Your task to perform on an android device: check google app version Image 0: 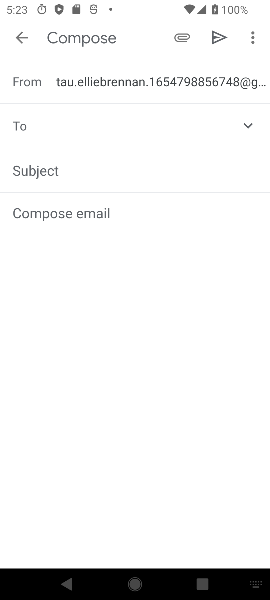
Step 0: click (12, 34)
Your task to perform on an android device: check google app version Image 1: 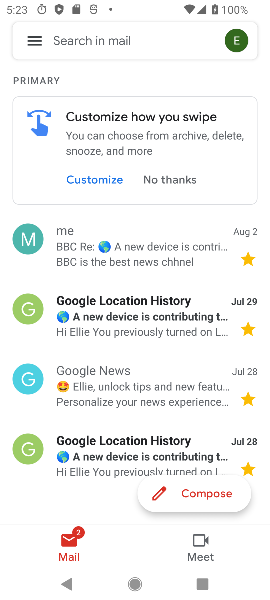
Step 1: press back button
Your task to perform on an android device: check google app version Image 2: 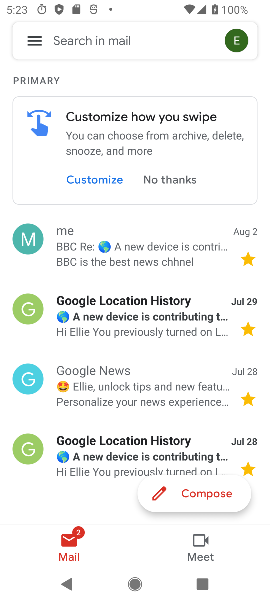
Step 2: press home button
Your task to perform on an android device: check google app version Image 3: 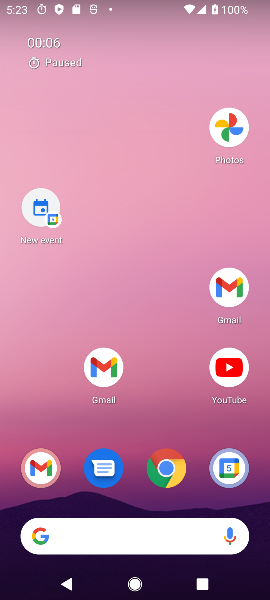
Step 3: drag from (174, 507) to (86, 120)
Your task to perform on an android device: check google app version Image 4: 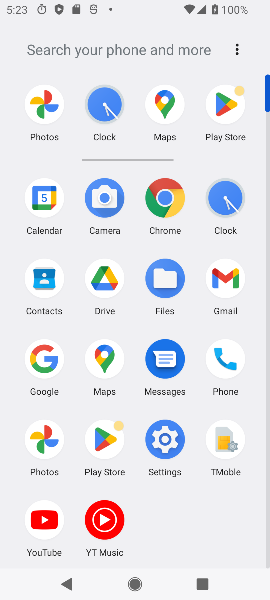
Step 4: drag from (144, 436) to (114, 92)
Your task to perform on an android device: check google app version Image 5: 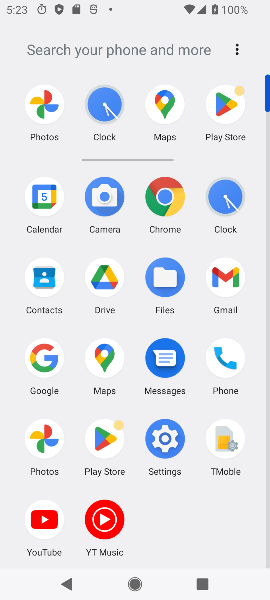
Step 5: click (128, 60)
Your task to perform on an android device: check google app version Image 6: 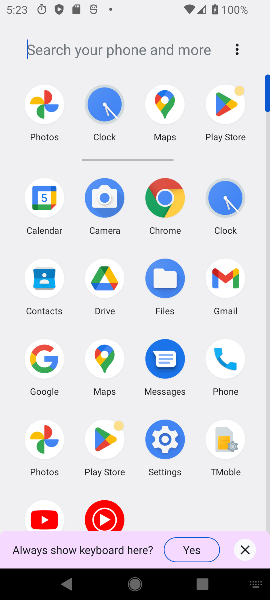
Step 6: click (37, 357)
Your task to perform on an android device: check google app version Image 7: 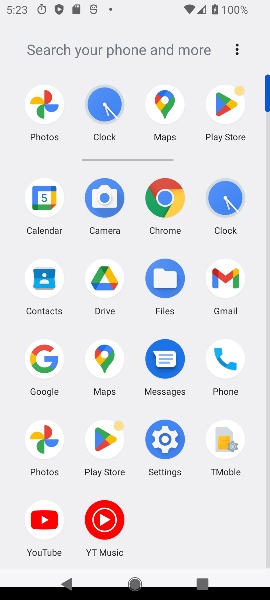
Step 7: click (37, 357)
Your task to perform on an android device: check google app version Image 8: 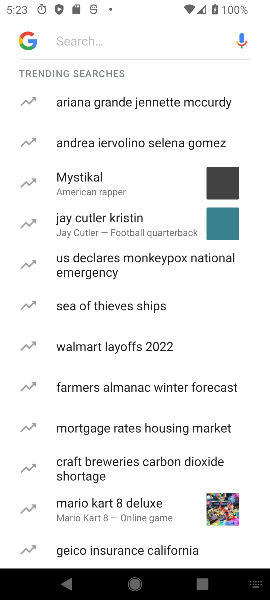
Step 8: click (37, 357)
Your task to perform on an android device: check google app version Image 9: 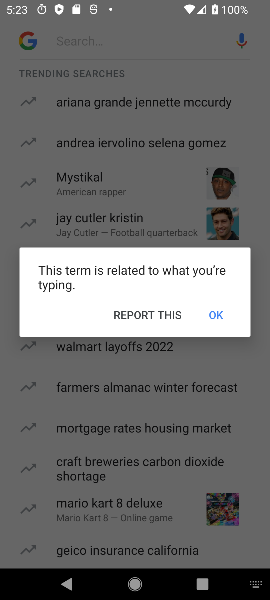
Step 9: click (68, 45)
Your task to perform on an android device: check google app version Image 10: 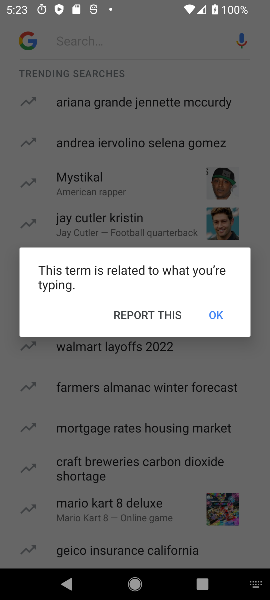
Step 10: click (67, 45)
Your task to perform on an android device: check google app version Image 11: 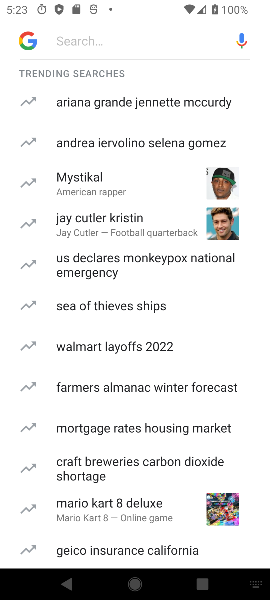
Step 11: click (66, 46)
Your task to perform on an android device: check google app version Image 12: 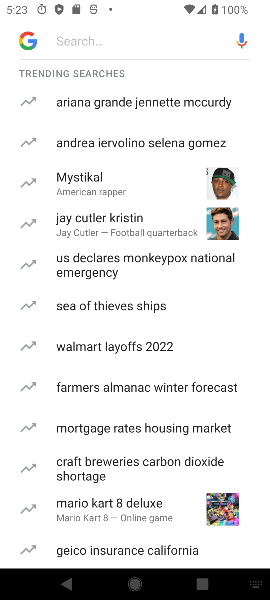
Step 12: click (67, 47)
Your task to perform on an android device: check google app version Image 13: 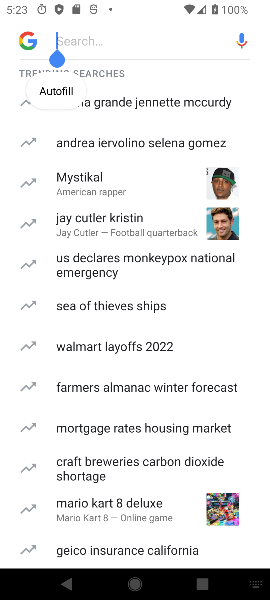
Step 13: click (67, 47)
Your task to perform on an android device: check google app version Image 14: 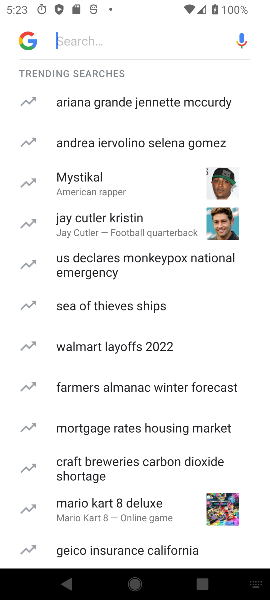
Step 14: click (67, 47)
Your task to perform on an android device: check google app version Image 15: 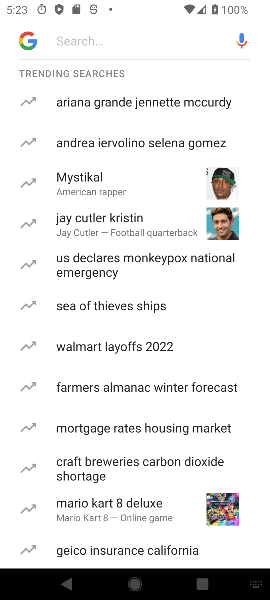
Step 15: click (195, 440)
Your task to perform on an android device: check google app version Image 16: 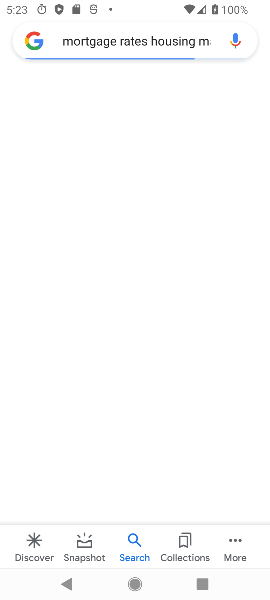
Step 16: drag from (221, 39) to (196, 276)
Your task to perform on an android device: check google app version Image 17: 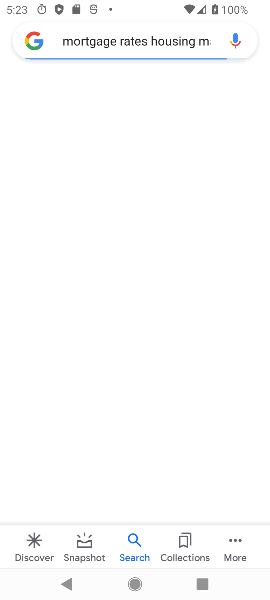
Step 17: drag from (152, 58) to (144, 304)
Your task to perform on an android device: check google app version Image 18: 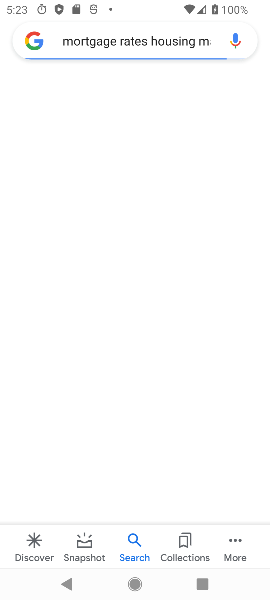
Step 18: drag from (228, 134) to (232, 293)
Your task to perform on an android device: check google app version Image 19: 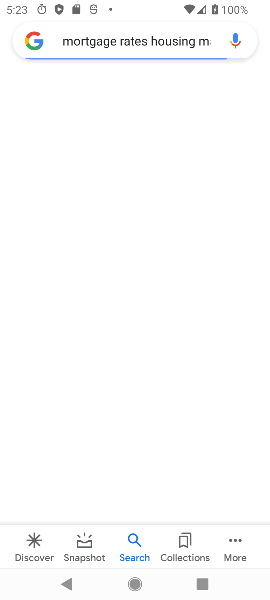
Step 19: drag from (244, 40) to (226, 365)
Your task to perform on an android device: check google app version Image 20: 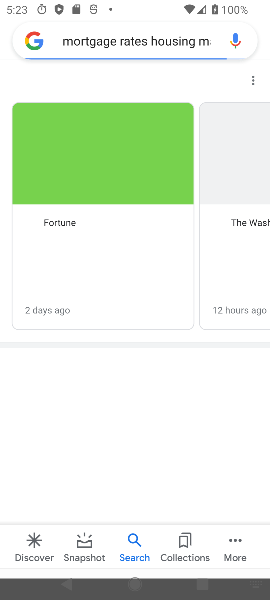
Step 20: click (238, 550)
Your task to perform on an android device: check google app version Image 21: 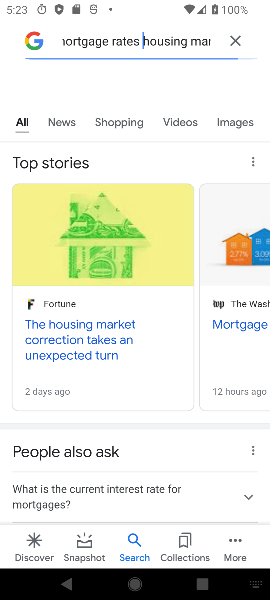
Step 21: click (238, 550)
Your task to perform on an android device: check google app version Image 22: 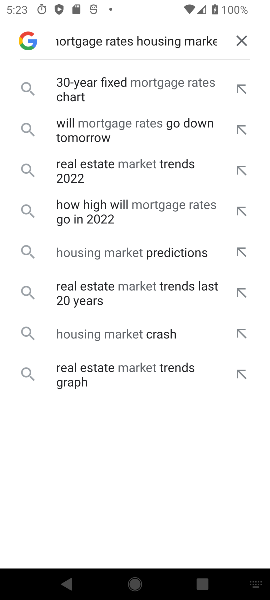
Step 22: click (240, 35)
Your task to perform on an android device: check google app version Image 23: 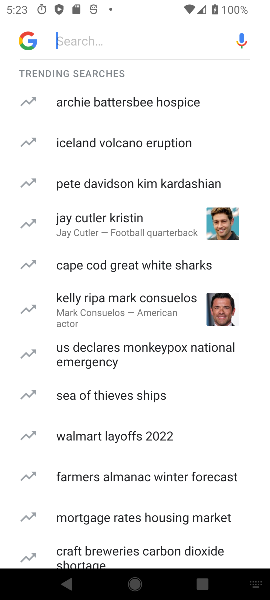
Step 23: drag from (243, 33) to (155, 459)
Your task to perform on an android device: check google app version Image 24: 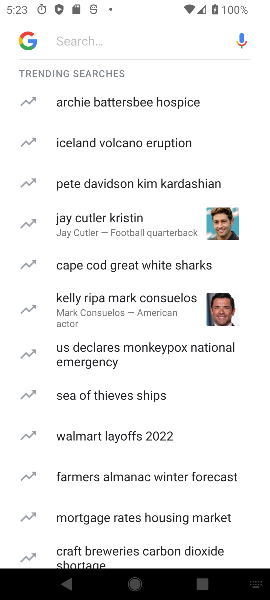
Step 24: drag from (242, 41) to (148, 388)
Your task to perform on an android device: check google app version Image 25: 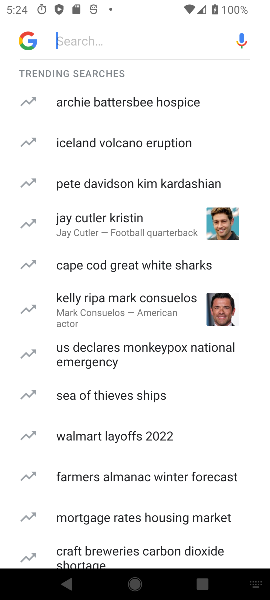
Step 25: drag from (227, 25) to (165, 374)
Your task to perform on an android device: check google app version Image 26: 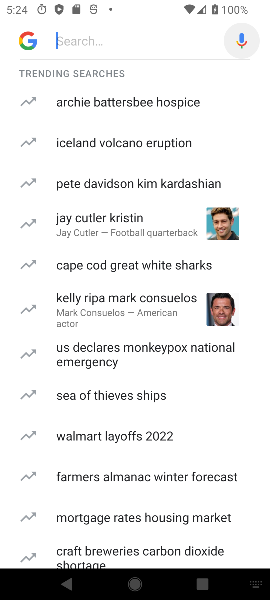
Step 26: drag from (159, 65) to (97, 482)
Your task to perform on an android device: check google app version Image 27: 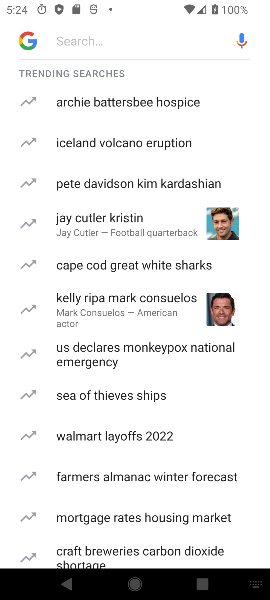
Step 27: drag from (138, 106) to (143, 438)
Your task to perform on an android device: check google app version Image 28: 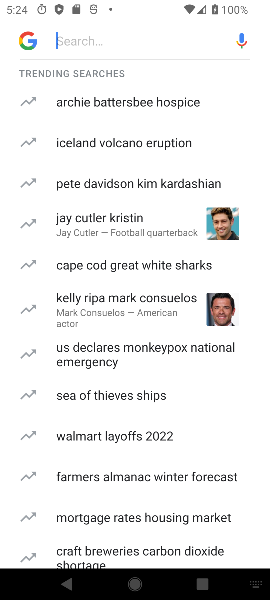
Step 28: press back button
Your task to perform on an android device: check google app version Image 29: 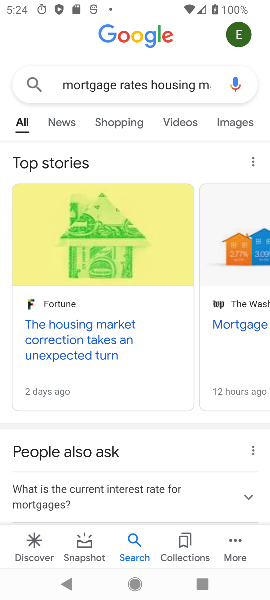
Step 29: drag from (243, 32) to (142, 593)
Your task to perform on an android device: check google app version Image 30: 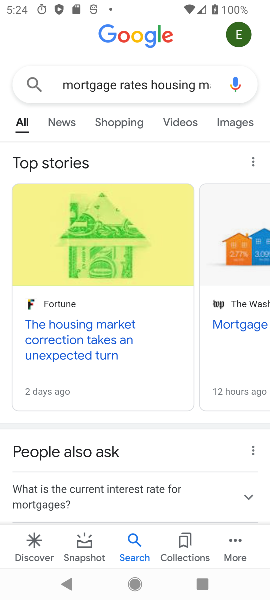
Step 30: click (236, 551)
Your task to perform on an android device: check google app version Image 31: 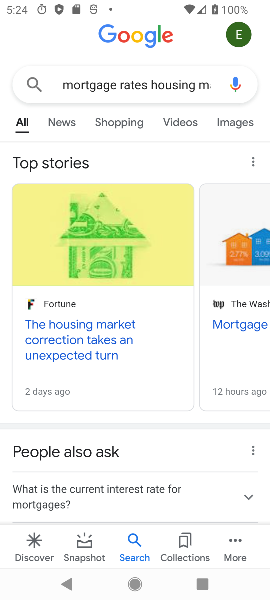
Step 31: click (236, 551)
Your task to perform on an android device: check google app version Image 32: 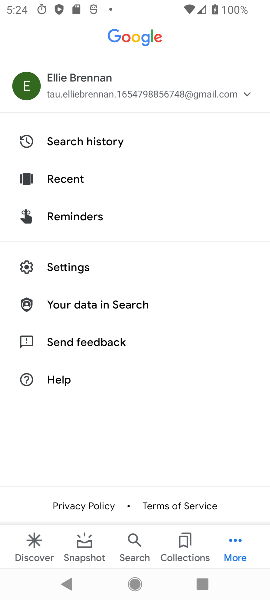
Step 32: click (62, 264)
Your task to perform on an android device: check google app version Image 33: 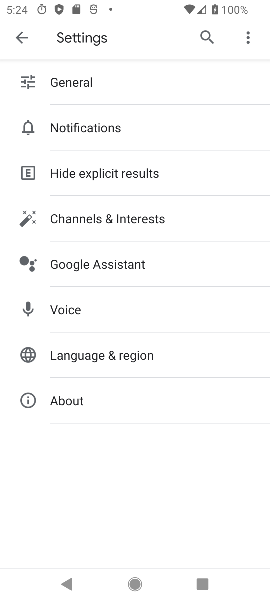
Step 33: click (68, 402)
Your task to perform on an android device: check google app version Image 34: 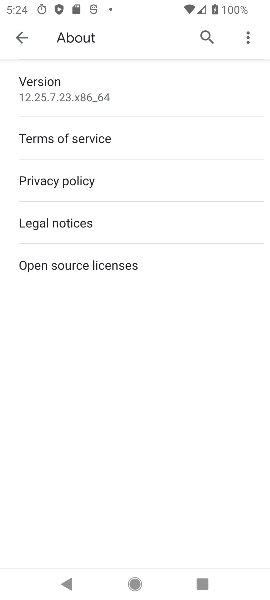
Step 34: click (53, 88)
Your task to perform on an android device: check google app version Image 35: 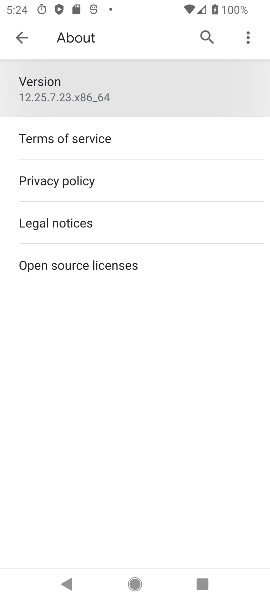
Step 35: click (53, 88)
Your task to perform on an android device: check google app version Image 36: 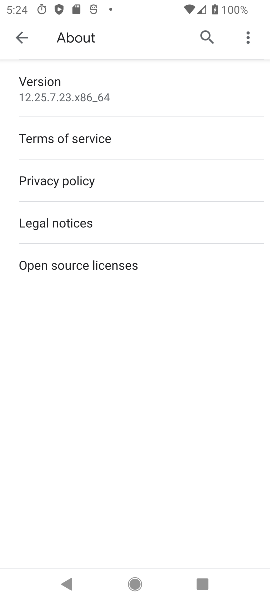
Step 36: task complete